Your task to perform on an android device: find which apps use the phone's location Image 0: 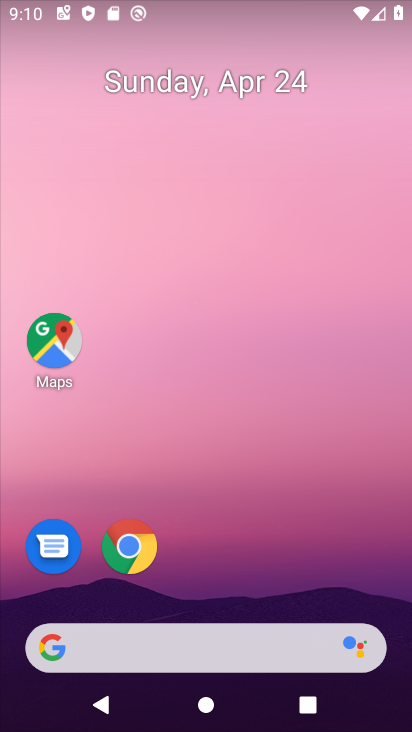
Step 0: click (280, 219)
Your task to perform on an android device: find which apps use the phone's location Image 1: 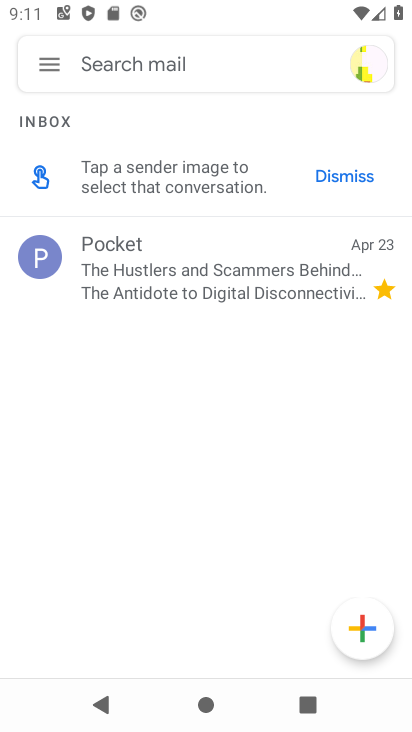
Step 1: press home button
Your task to perform on an android device: find which apps use the phone's location Image 2: 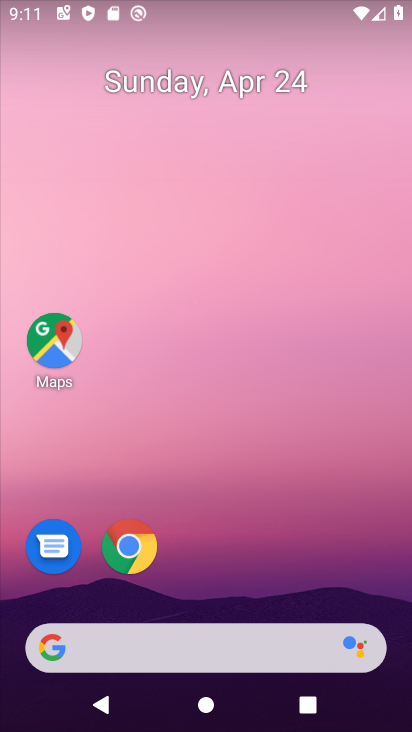
Step 2: drag from (254, 427) to (282, 241)
Your task to perform on an android device: find which apps use the phone's location Image 3: 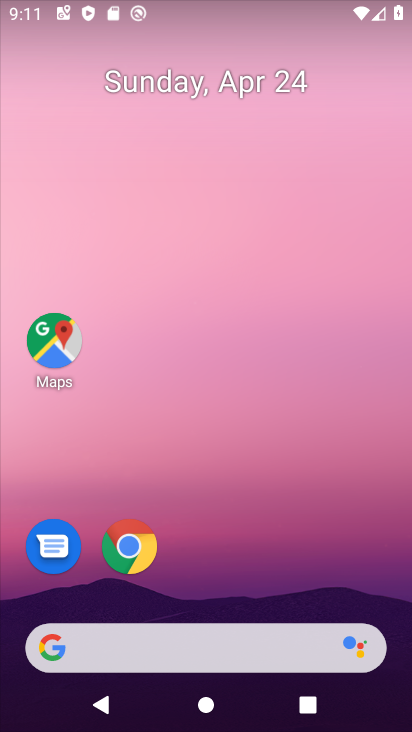
Step 3: drag from (230, 529) to (273, 161)
Your task to perform on an android device: find which apps use the phone's location Image 4: 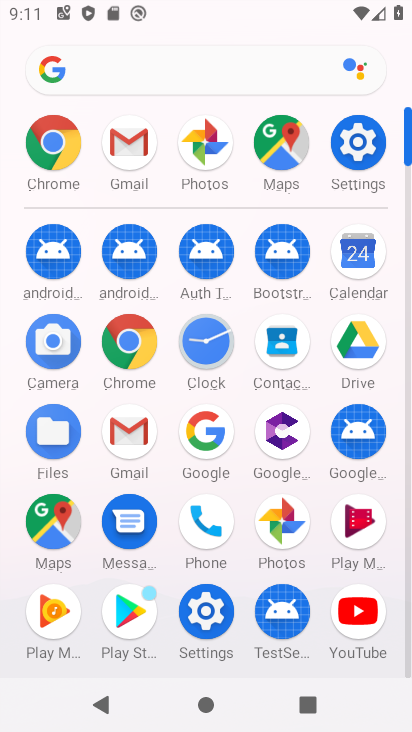
Step 4: click (343, 134)
Your task to perform on an android device: find which apps use the phone's location Image 5: 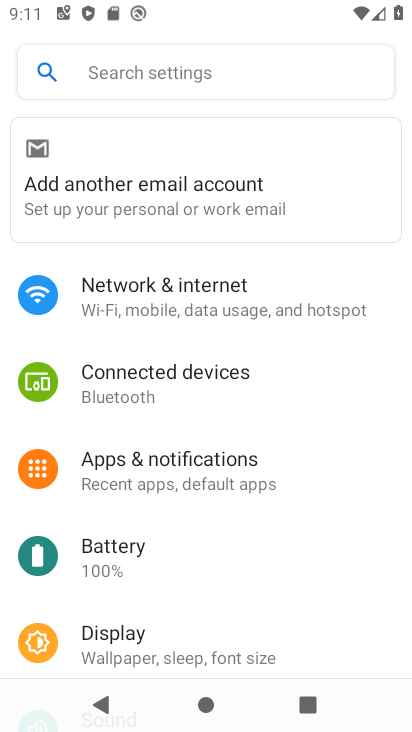
Step 5: drag from (237, 574) to (298, 83)
Your task to perform on an android device: find which apps use the phone's location Image 6: 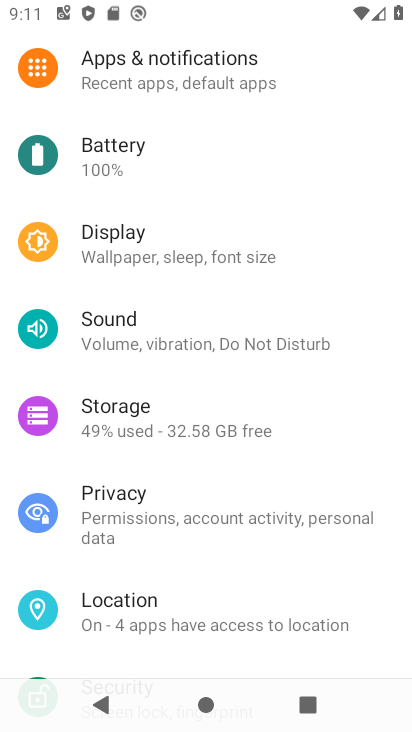
Step 6: click (189, 613)
Your task to perform on an android device: find which apps use the phone's location Image 7: 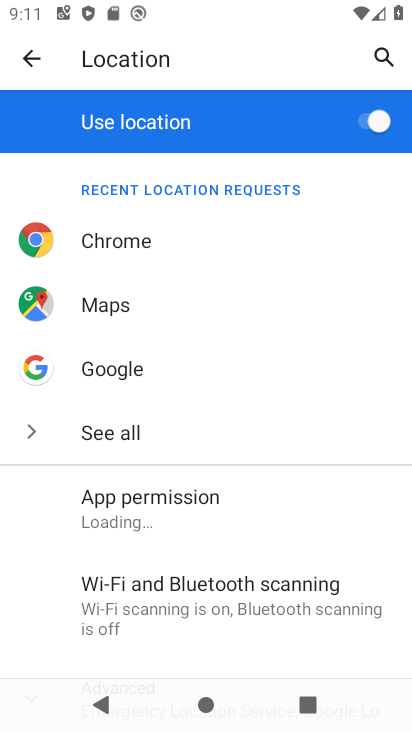
Step 7: task complete